Your task to perform on an android device: delete browsing data in the chrome app Image 0: 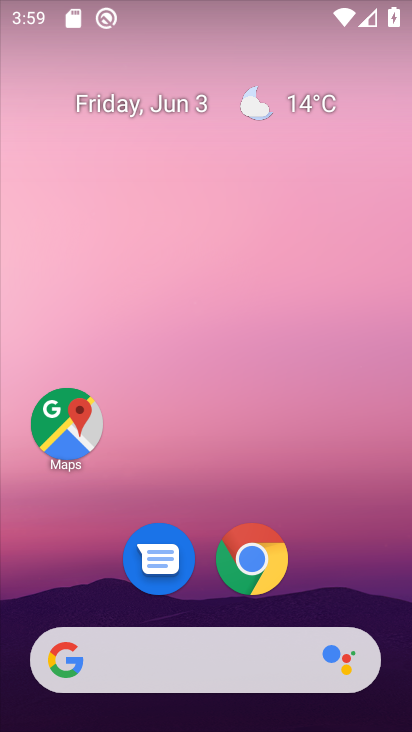
Step 0: drag from (217, 700) to (150, 254)
Your task to perform on an android device: delete browsing data in the chrome app Image 1: 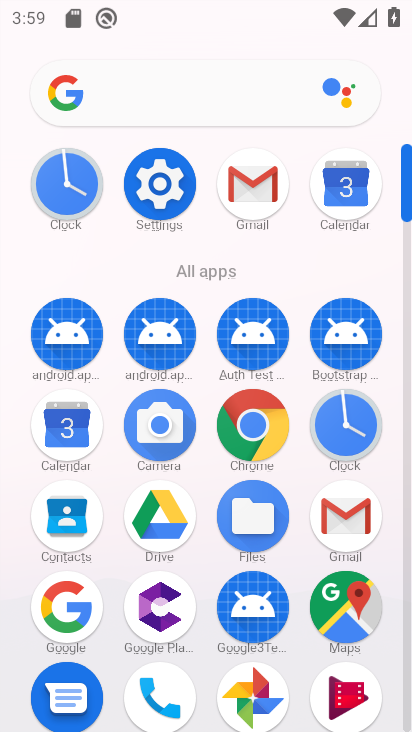
Step 1: click (250, 414)
Your task to perform on an android device: delete browsing data in the chrome app Image 2: 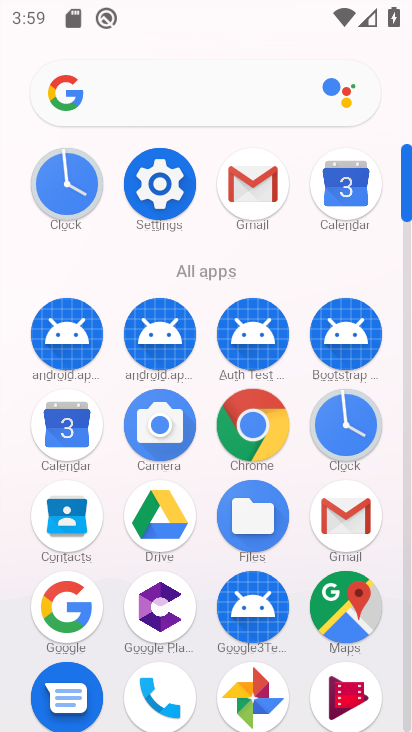
Step 2: click (248, 399)
Your task to perform on an android device: delete browsing data in the chrome app Image 3: 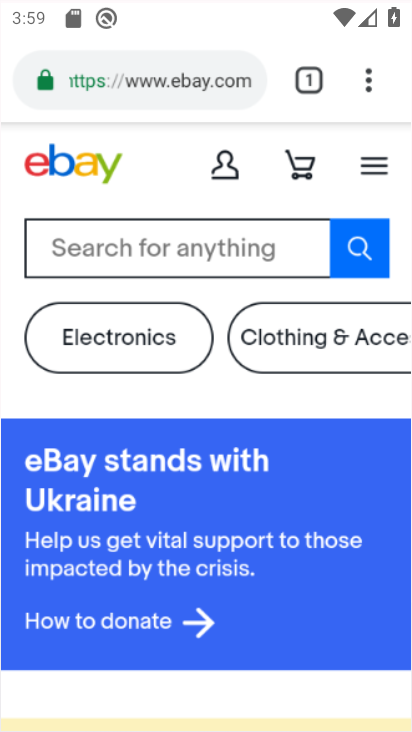
Step 3: click (249, 399)
Your task to perform on an android device: delete browsing data in the chrome app Image 4: 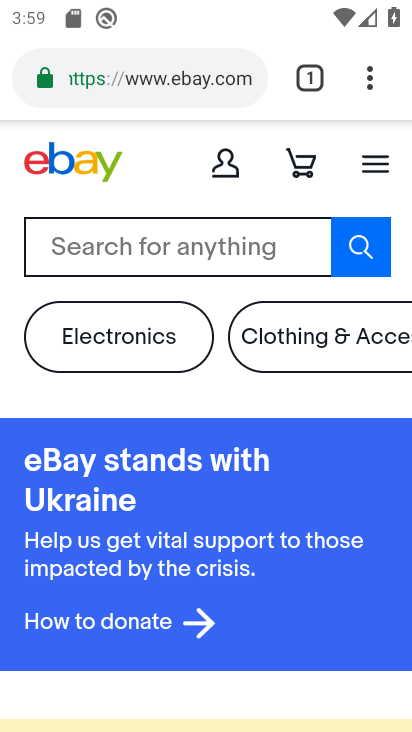
Step 4: drag from (360, 88) to (58, 283)
Your task to perform on an android device: delete browsing data in the chrome app Image 5: 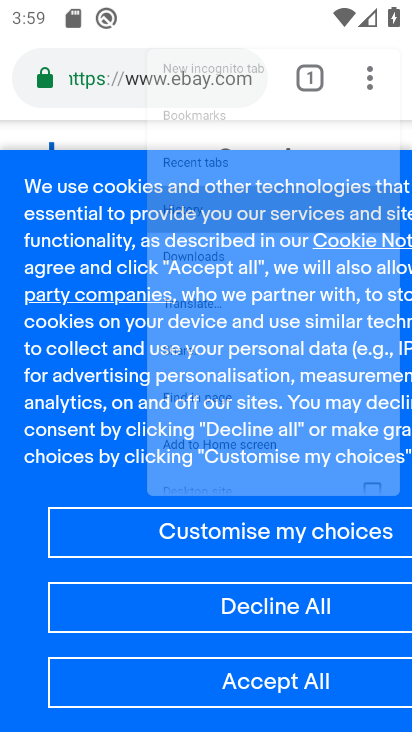
Step 5: click (60, 282)
Your task to perform on an android device: delete browsing data in the chrome app Image 6: 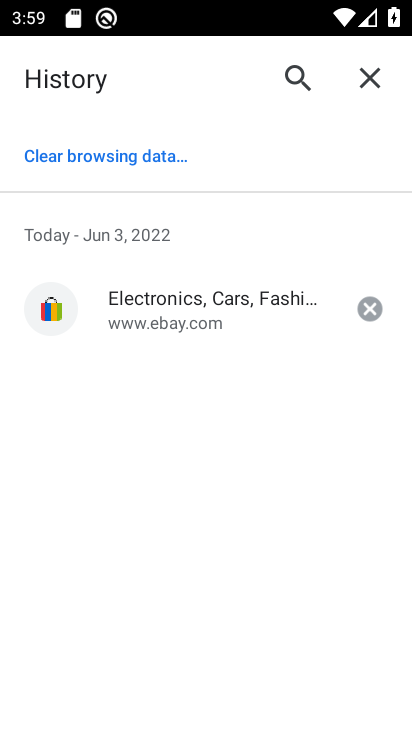
Step 6: click (126, 155)
Your task to perform on an android device: delete browsing data in the chrome app Image 7: 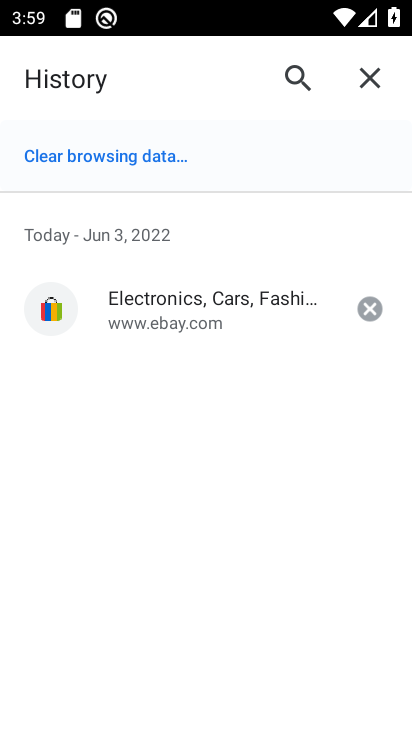
Step 7: click (135, 139)
Your task to perform on an android device: delete browsing data in the chrome app Image 8: 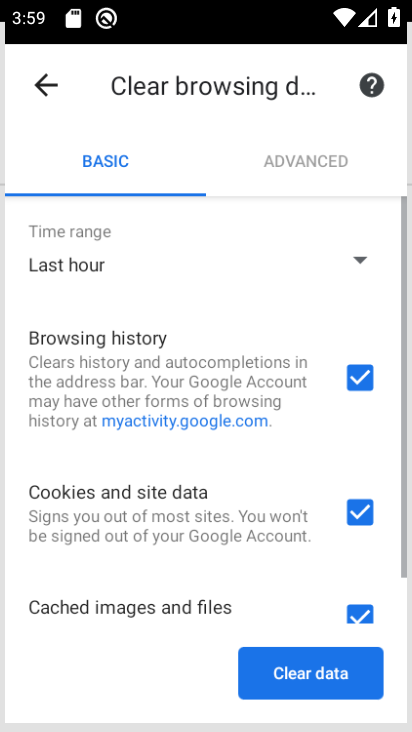
Step 8: click (135, 139)
Your task to perform on an android device: delete browsing data in the chrome app Image 9: 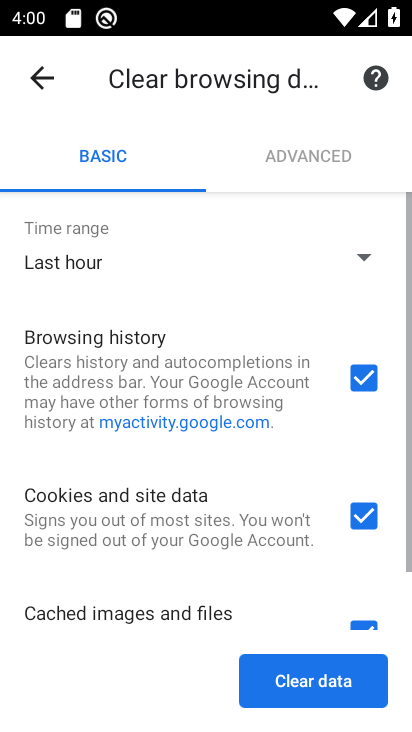
Step 9: click (283, 679)
Your task to perform on an android device: delete browsing data in the chrome app Image 10: 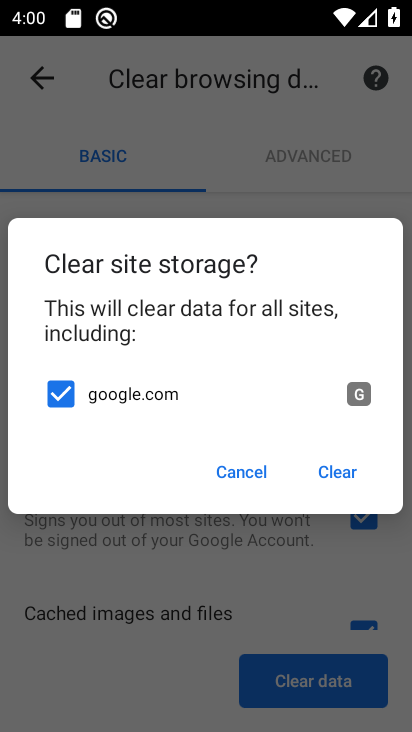
Step 10: task complete